Your task to perform on an android device: turn on sleep mode Image 0: 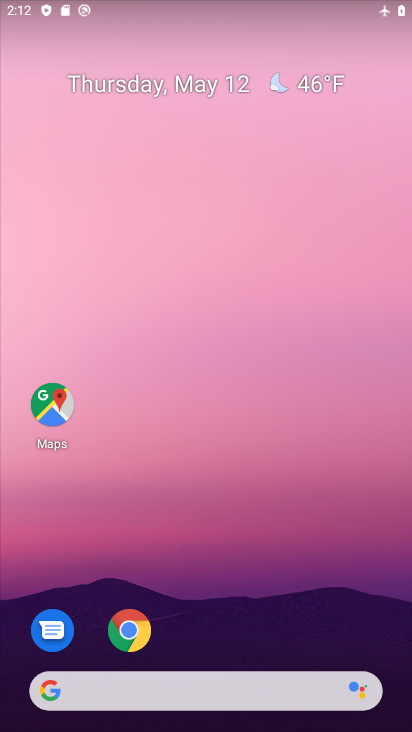
Step 0: click (232, 140)
Your task to perform on an android device: turn on sleep mode Image 1: 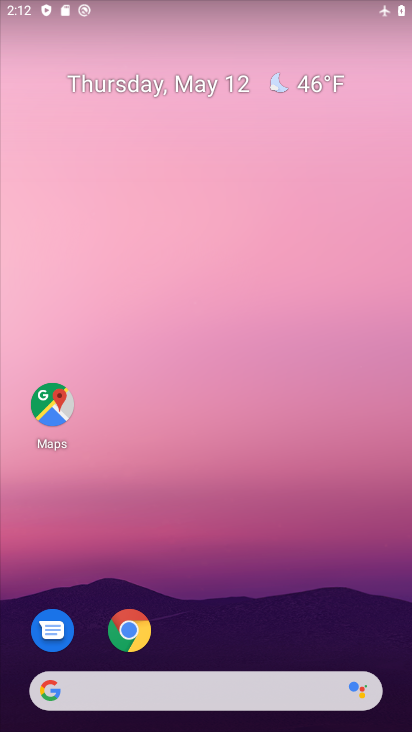
Step 1: drag from (241, 608) to (133, 127)
Your task to perform on an android device: turn on sleep mode Image 2: 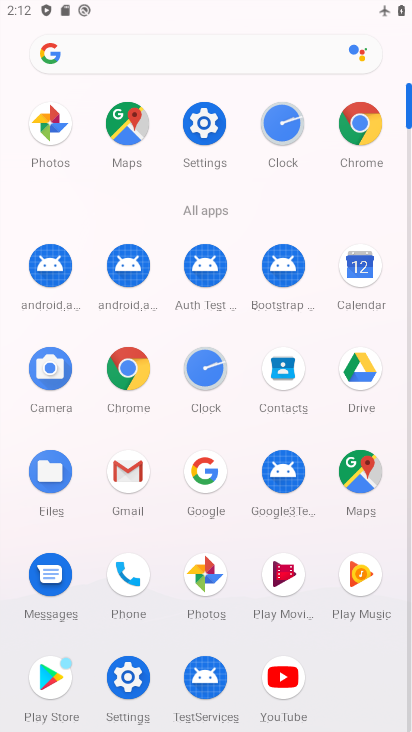
Step 2: click (212, 161)
Your task to perform on an android device: turn on sleep mode Image 3: 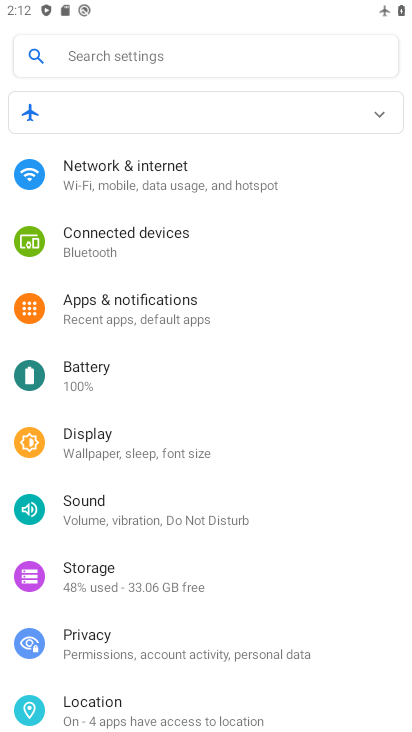
Step 3: task complete